Your task to perform on an android device: Open the calendar and show me this week's events Image 0: 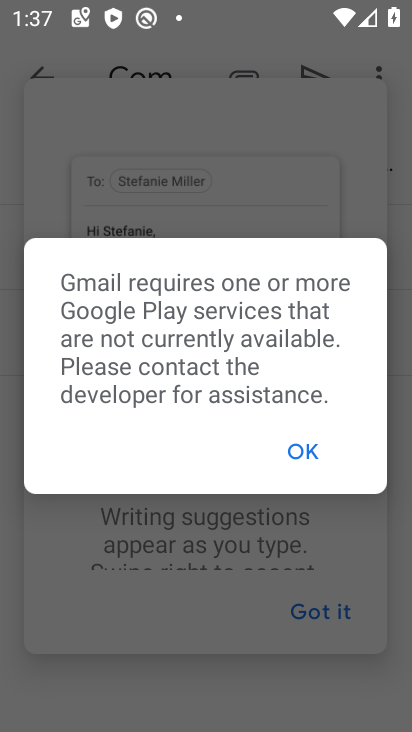
Step 0: click (290, 465)
Your task to perform on an android device: Open the calendar and show me this week's events Image 1: 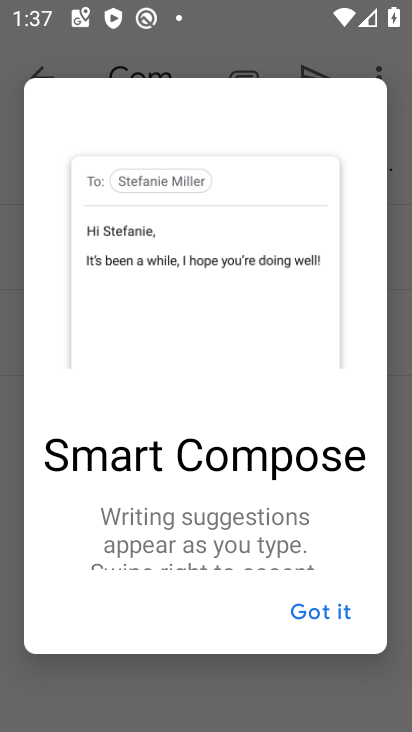
Step 1: click (302, 635)
Your task to perform on an android device: Open the calendar and show me this week's events Image 2: 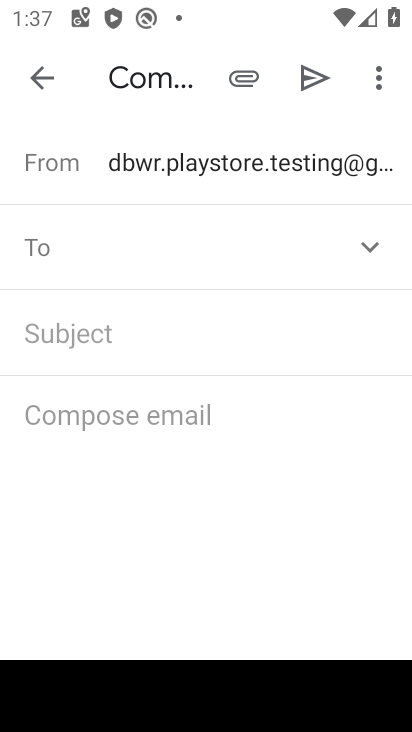
Step 2: press home button
Your task to perform on an android device: Open the calendar and show me this week's events Image 3: 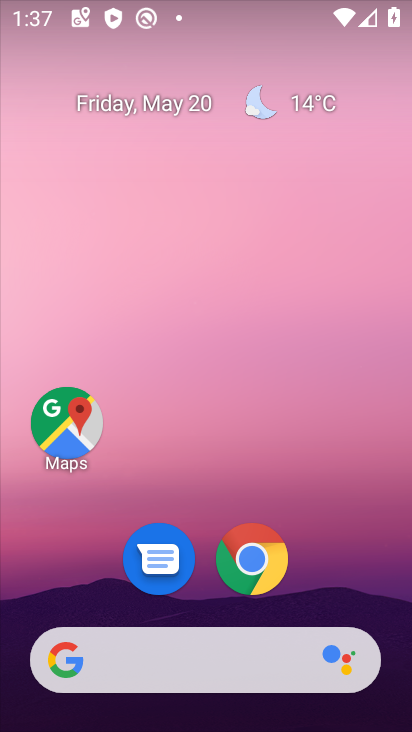
Step 3: click (327, 555)
Your task to perform on an android device: Open the calendar and show me this week's events Image 4: 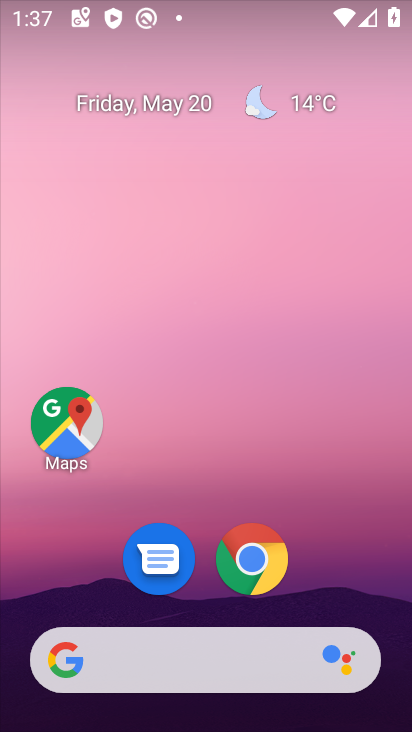
Step 4: drag from (327, 555) to (221, 143)
Your task to perform on an android device: Open the calendar and show me this week's events Image 5: 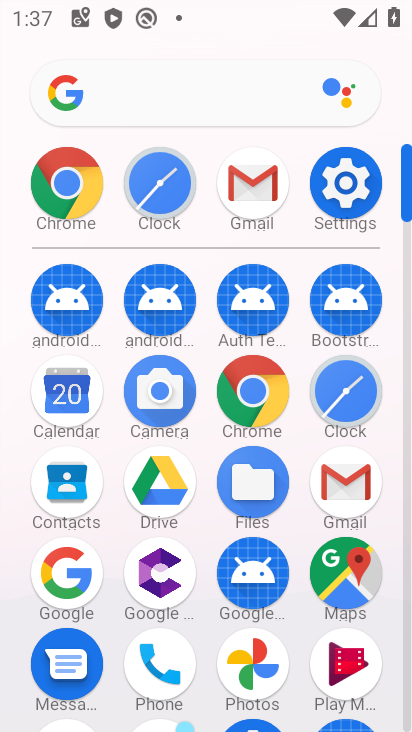
Step 5: click (67, 416)
Your task to perform on an android device: Open the calendar and show me this week's events Image 6: 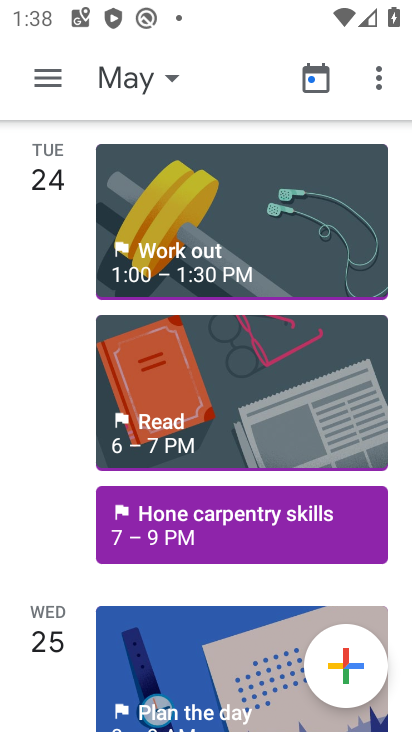
Step 6: click (56, 89)
Your task to perform on an android device: Open the calendar and show me this week's events Image 7: 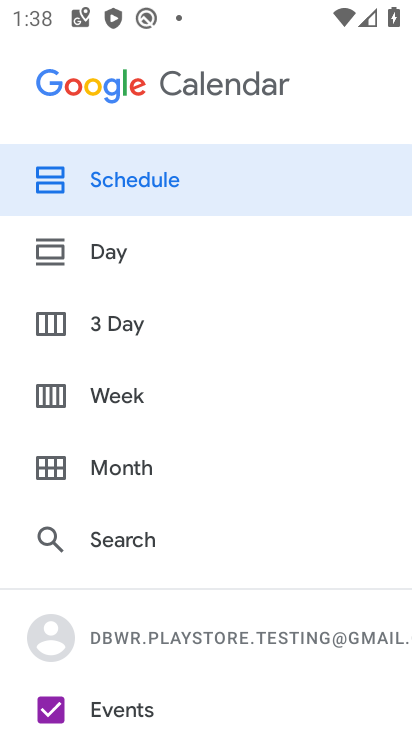
Step 7: click (153, 385)
Your task to perform on an android device: Open the calendar and show me this week's events Image 8: 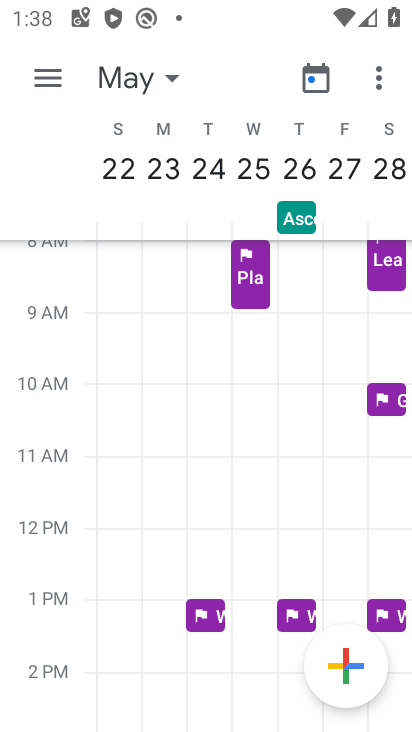
Step 8: task complete